Your task to perform on an android device: Go to Amazon Image 0: 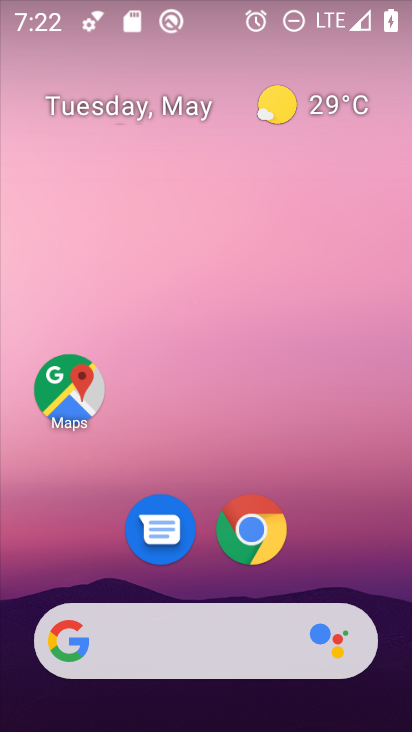
Step 0: drag from (391, 639) to (222, 49)
Your task to perform on an android device: Go to Amazon Image 1: 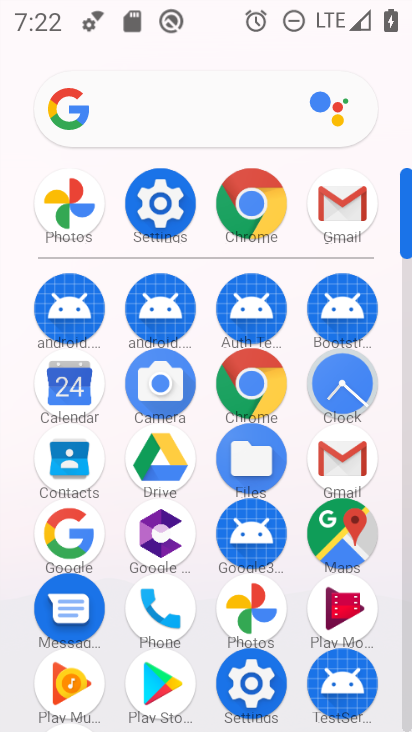
Step 1: click (244, 400)
Your task to perform on an android device: Go to Amazon Image 2: 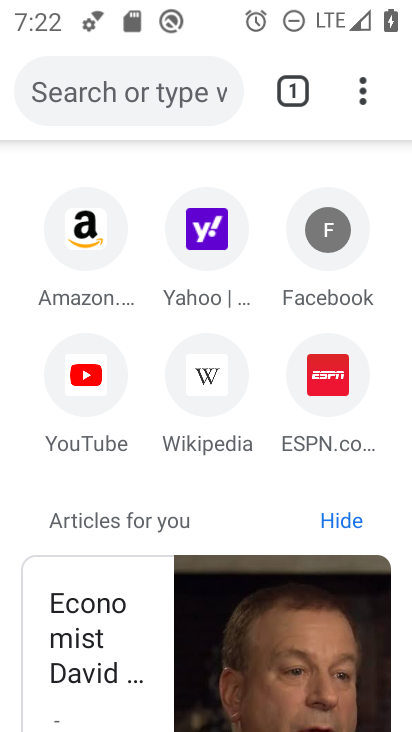
Step 2: click (87, 244)
Your task to perform on an android device: Go to Amazon Image 3: 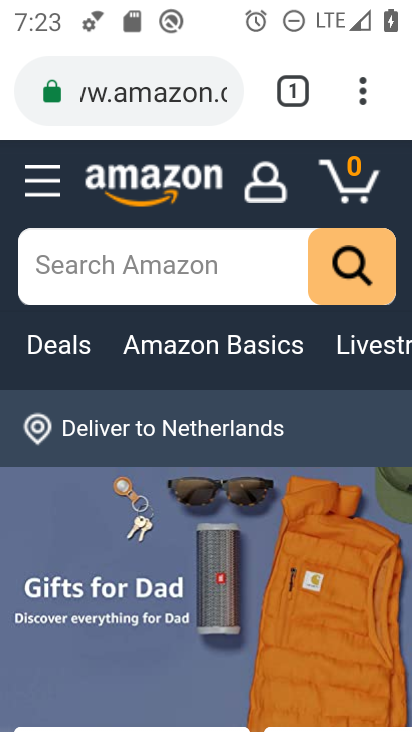
Step 3: task complete